Your task to perform on an android device: check the backup settings in the google photos Image 0: 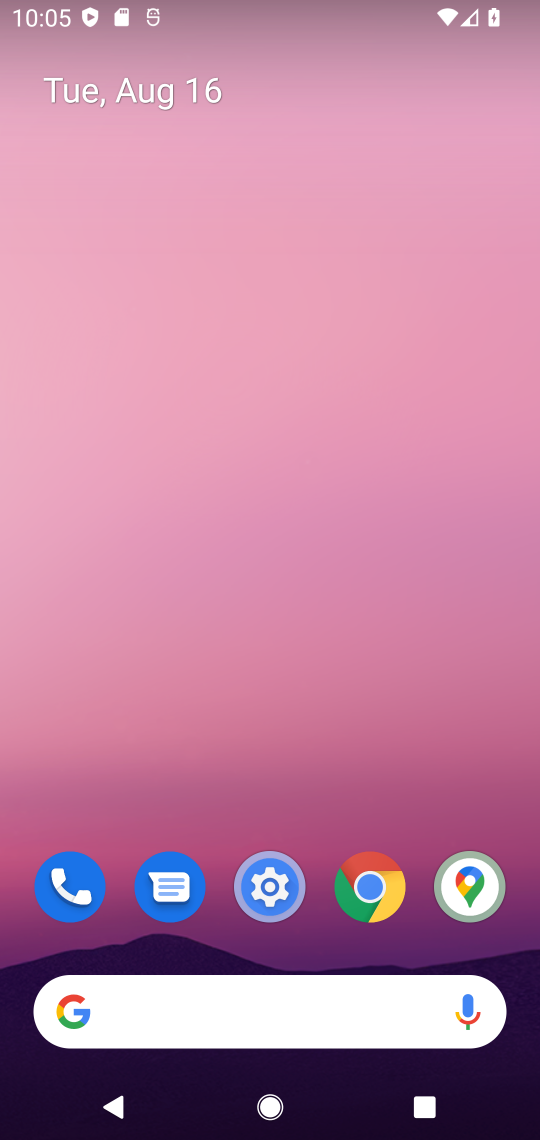
Step 0: press home button
Your task to perform on an android device: check the backup settings in the google photos Image 1: 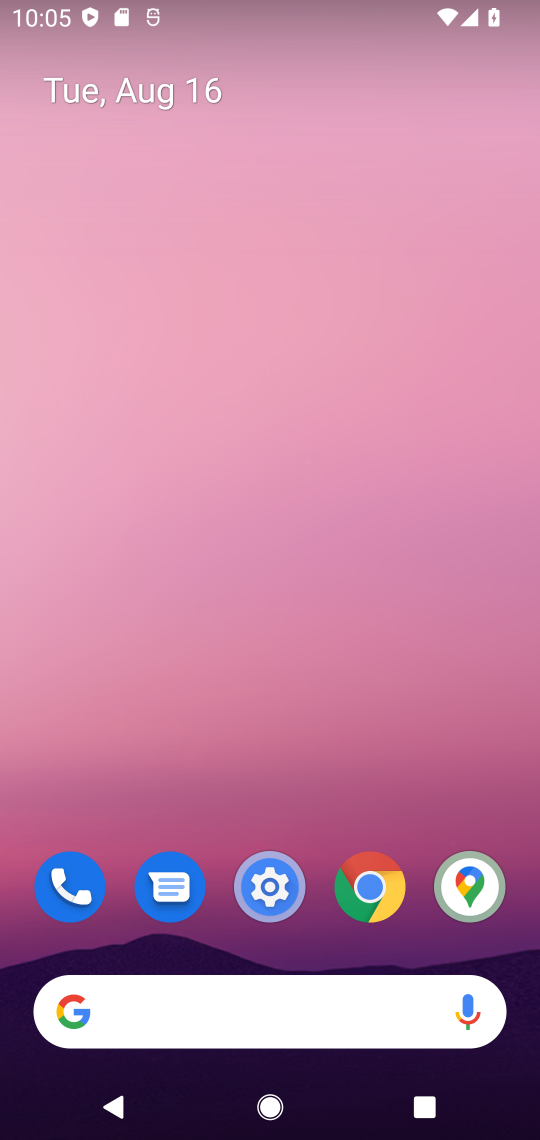
Step 1: drag from (414, 739) to (415, 135)
Your task to perform on an android device: check the backup settings in the google photos Image 2: 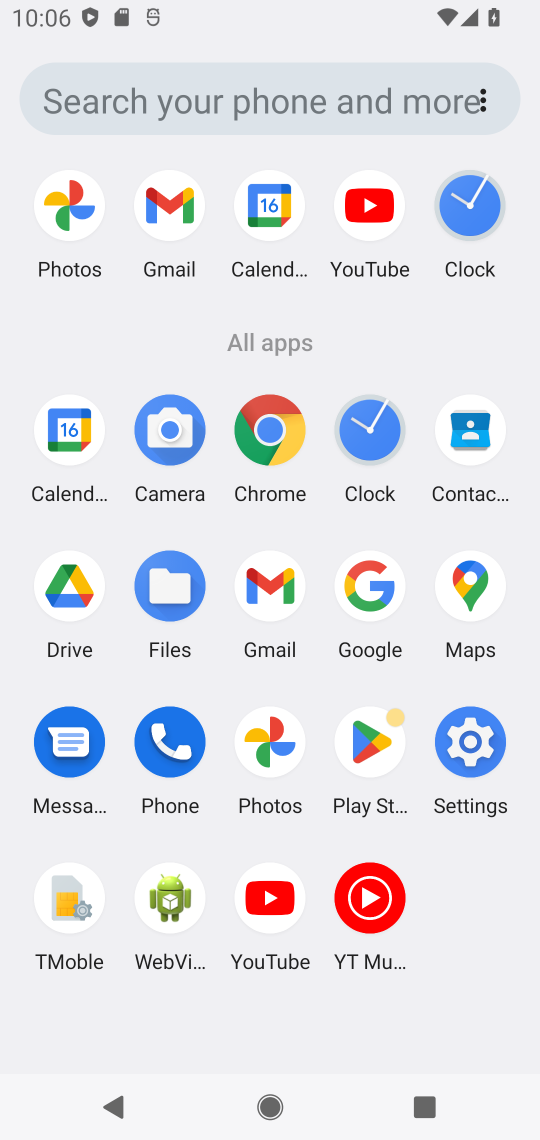
Step 2: click (265, 734)
Your task to perform on an android device: check the backup settings in the google photos Image 3: 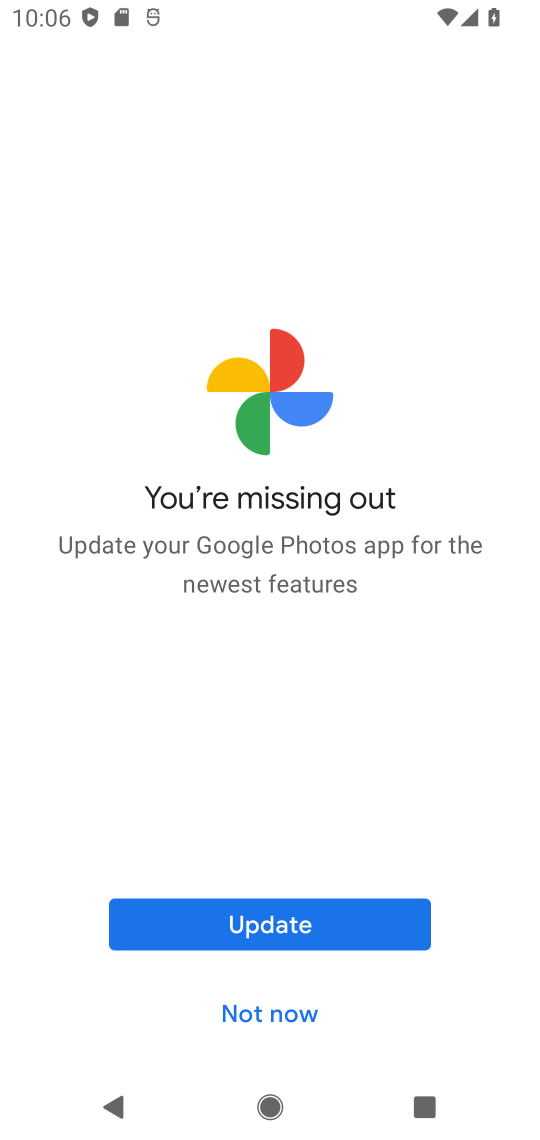
Step 3: click (277, 1006)
Your task to perform on an android device: check the backup settings in the google photos Image 4: 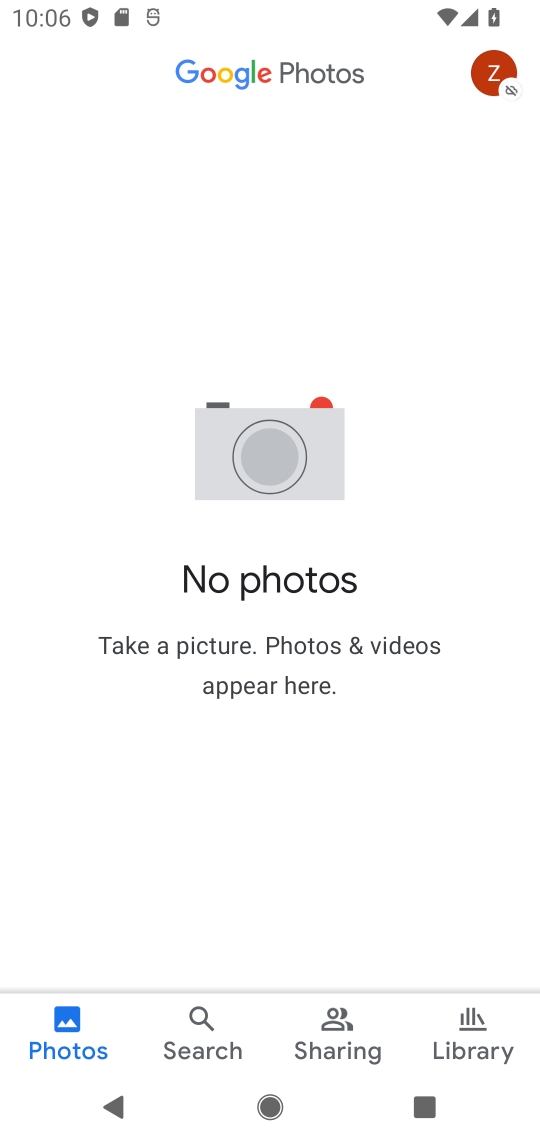
Step 4: click (490, 70)
Your task to perform on an android device: check the backup settings in the google photos Image 5: 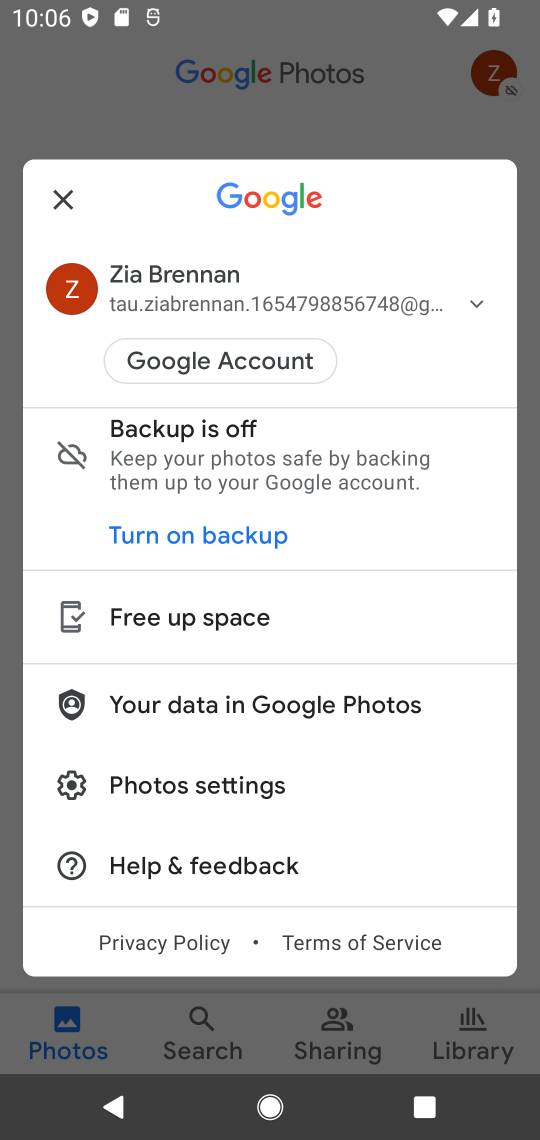
Step 5: click (247, 792)
Your task to perform on an android device: check the backup settings in the google photos Image 6: 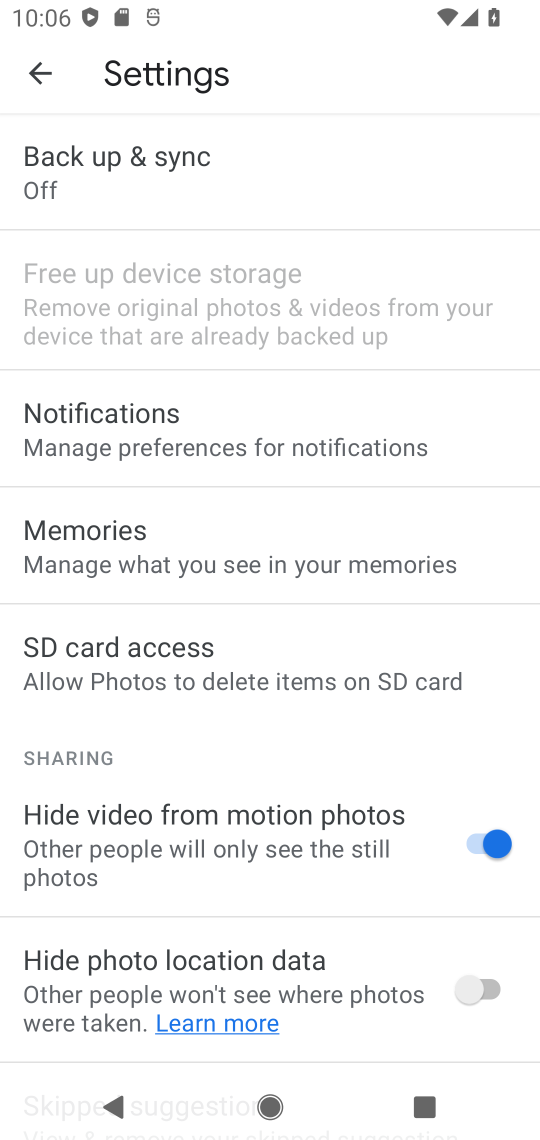
Step 6: click (153, 164)
Your task to perform on an android device: check the backup settings in the google photos Image 7: 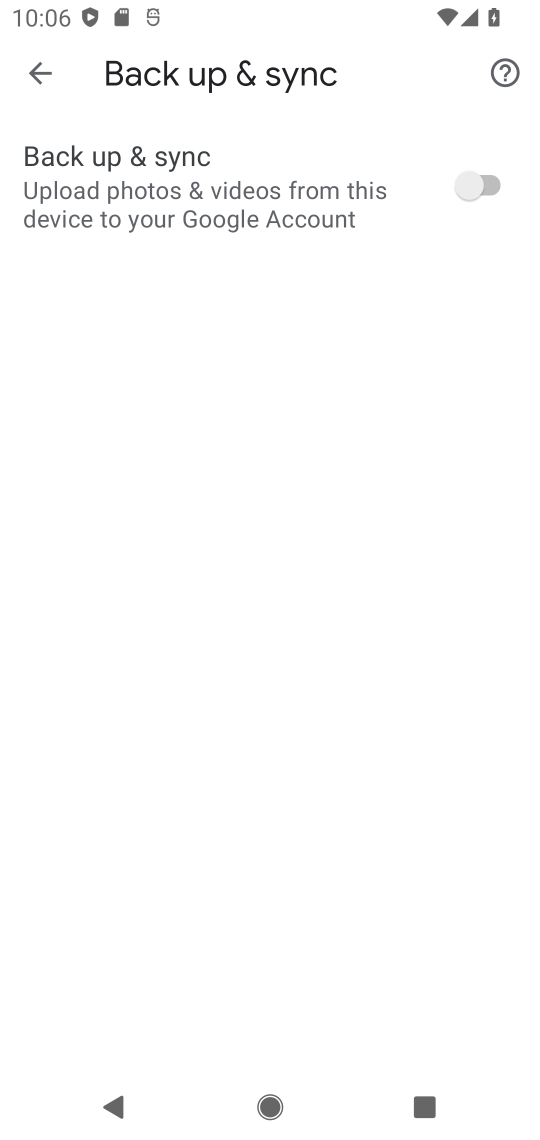
Step 7: click (265, 184)
Your task to perform on an android device: check the backup settings in the google photos Image 8: 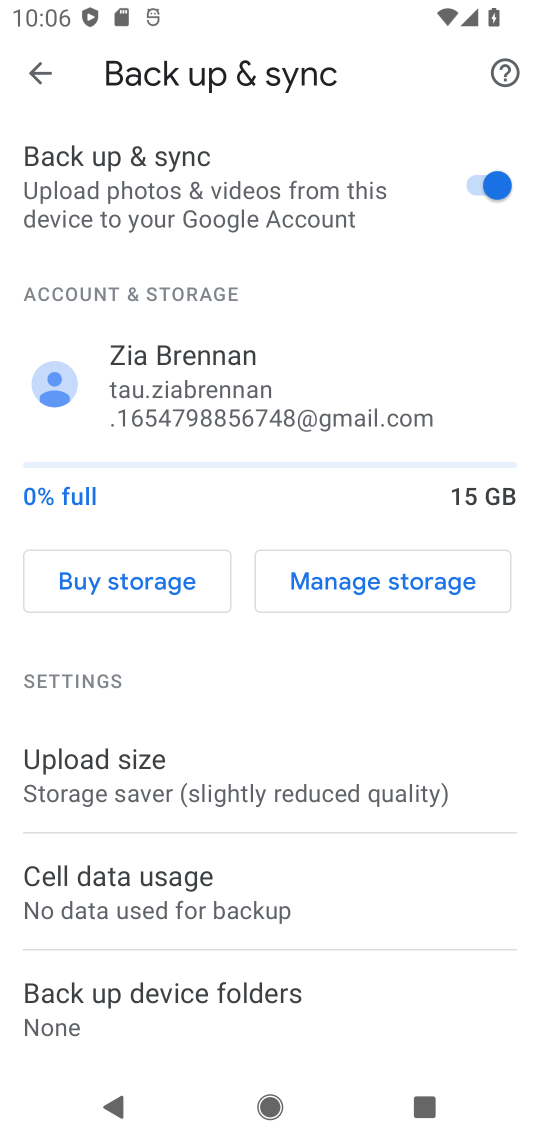
Step 8: task complete